Your task to perform on an android device: check data usage Image 0: 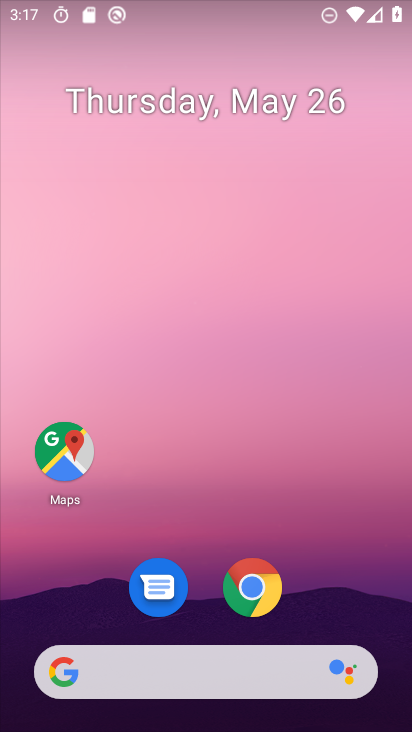
Step 0: drag from (316, 417) to (292, 156)
Your task to perform on an android device: check data usage Image 1: 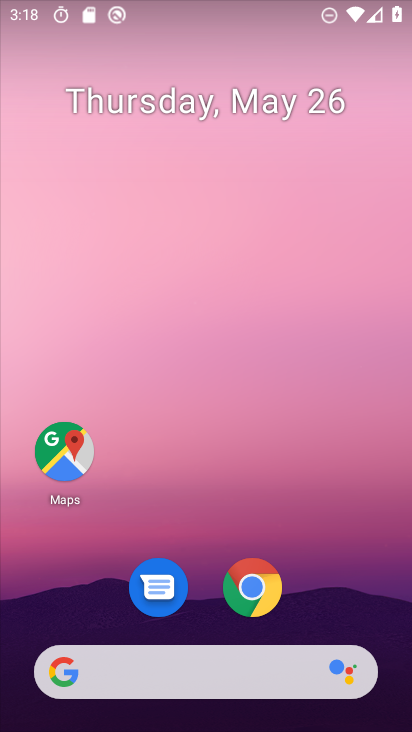
Step 1: click (292, 156)
Your task to perform on an android device: check data usage Image 2: 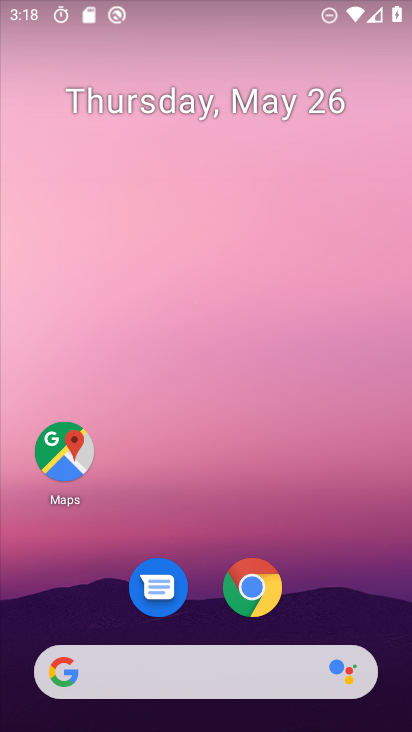
Step 2: drag from (308, 562) to (300, 181)
Your task to perform on an android device: check data usage Image 3: 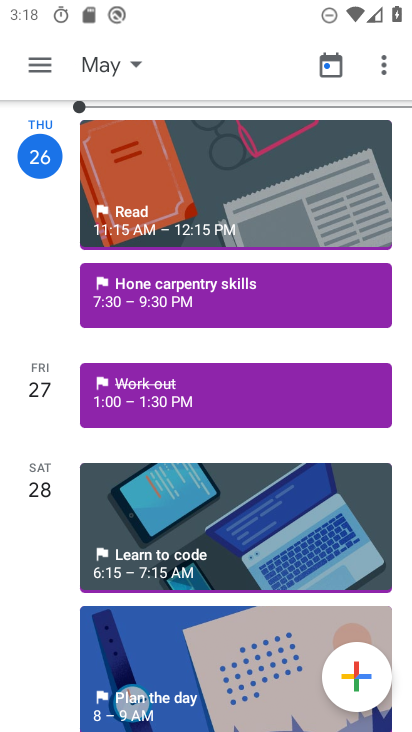
Step 3: press home button
Your task to perform on an android device: check data usage Image 4: 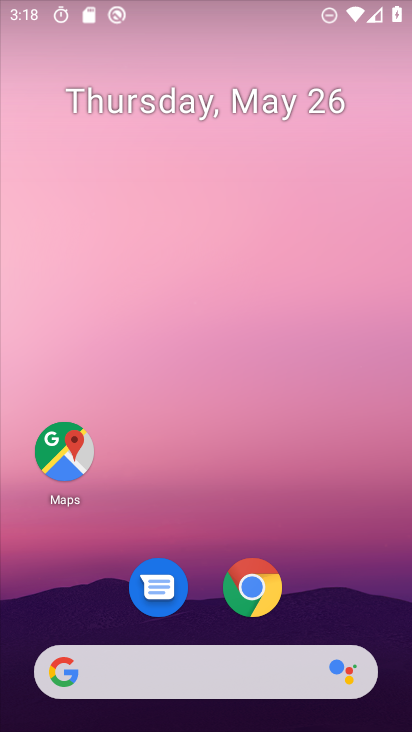
Step 4: drag from (324, 548) to (315, 163)
Your task to perform on an android device: check data usage Image 5: 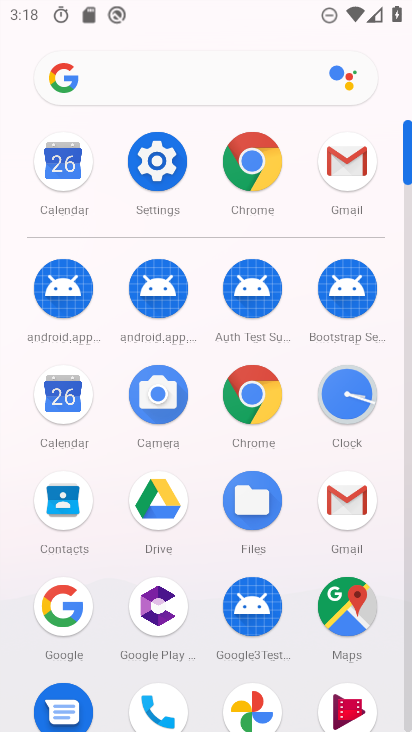
Step 5: click (166, 168)
Your task to perform on an android device: check data usage Image 6: 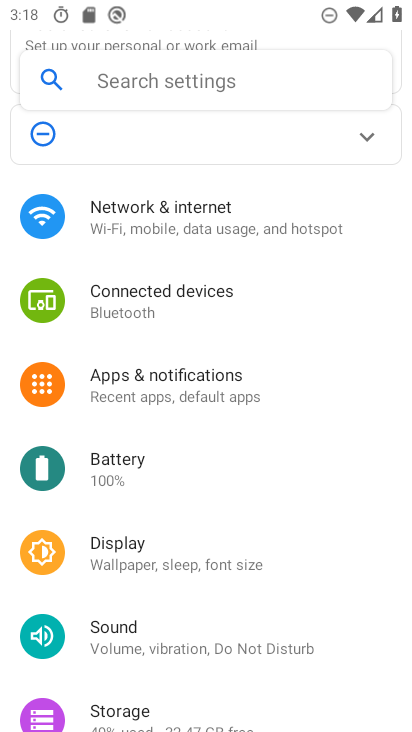
Step 6: click (158, 231)
Your task to perform on an android device: check data usage Image 7: 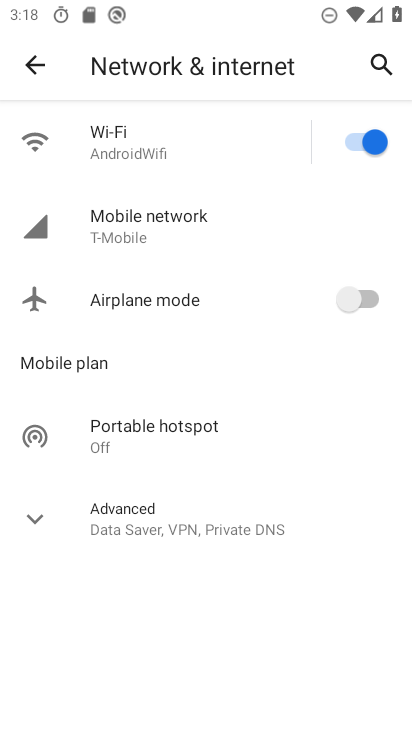
Step 7: click (158, 239)
Your task to perform on an android device: check data usage Image 8: 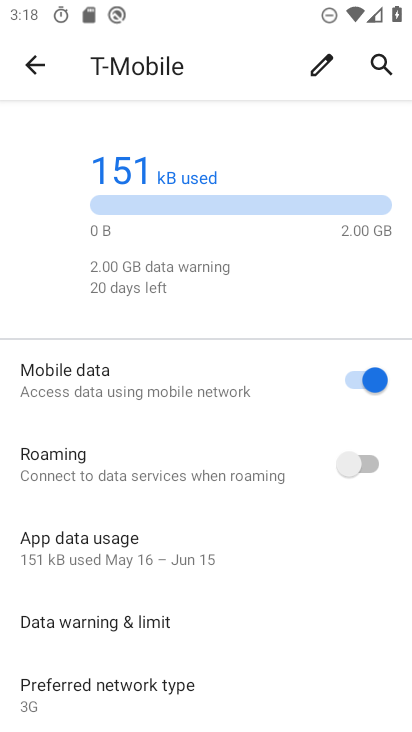
Step 8: task complete